Your task to perform on an android device: check the backup settings in the google photos Image 0: 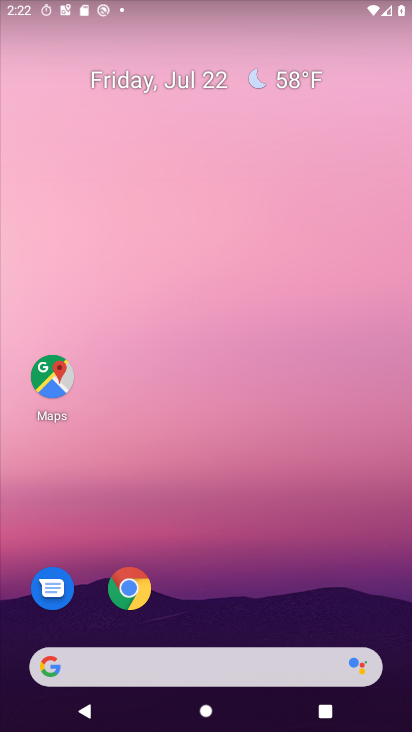
Step 0: press home button
Your task to perform on an android device: check the backup settings in the google photos Image 1: 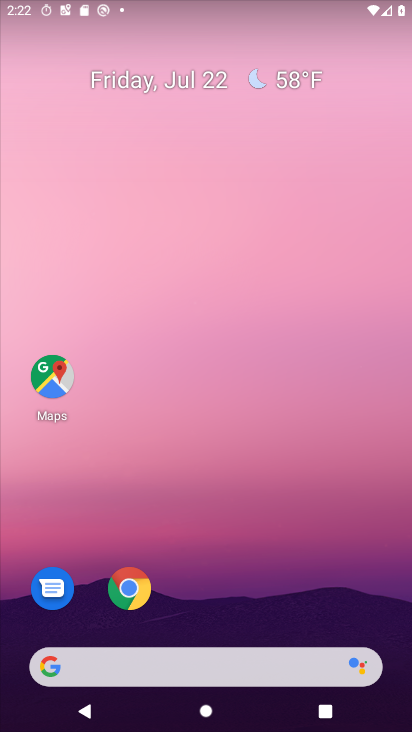
Step 1: drag from (266, 587) to (258, 57)
Your task to perform on an android device: check the backup settings in the google photos Image 2: 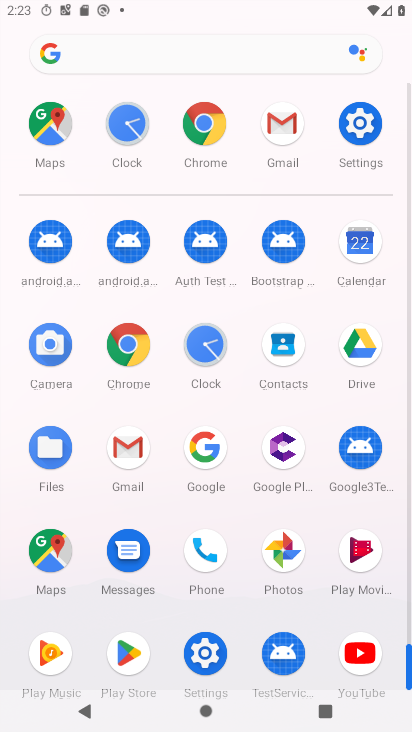
Step 2: click (269, 544)
Your task to perform on an android device: check the backup settings in the google photos Image 3: 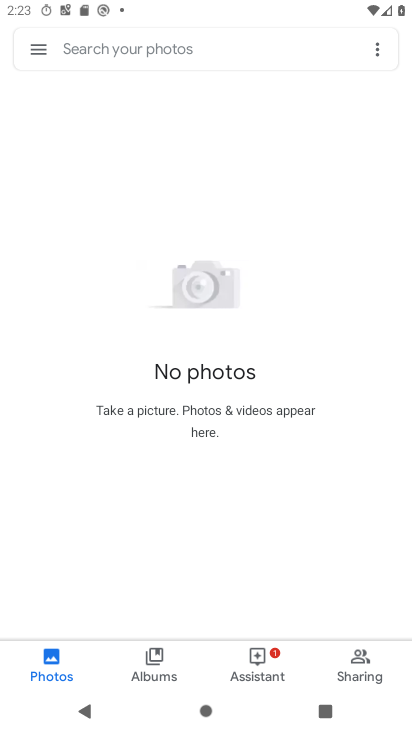
Step 3: click (38, 68)
Your task to perform on an android device: check the backup settings in the google photos Image 4: 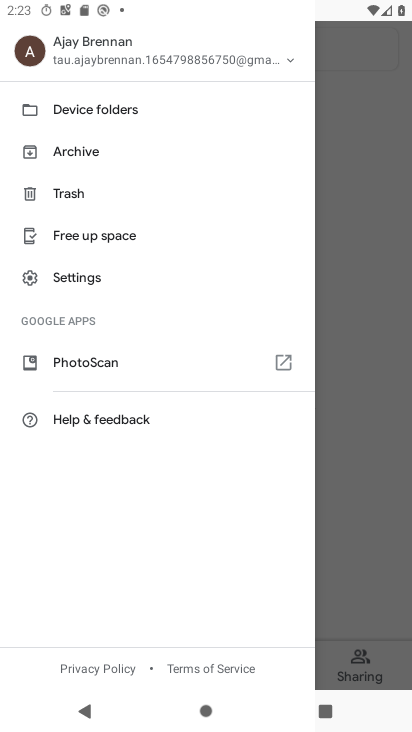
Step 4: click (152, 512)
Your task to perform on an android device: check the backup settings in the google photos Image 5: 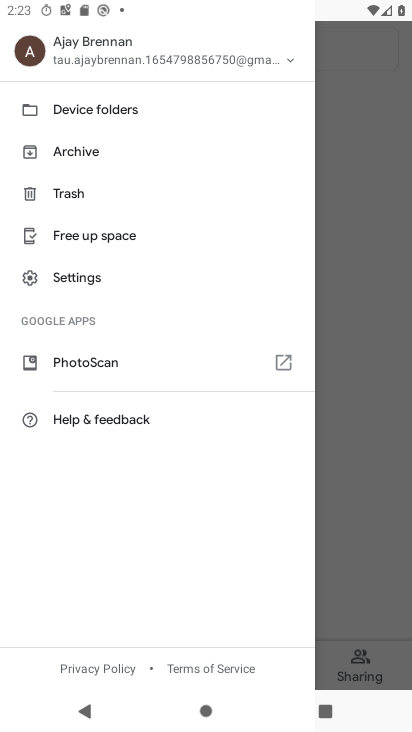
Step 5: click (58, 271)
Your task to perform on an android device: check the backup settings in the google photos Image 6: 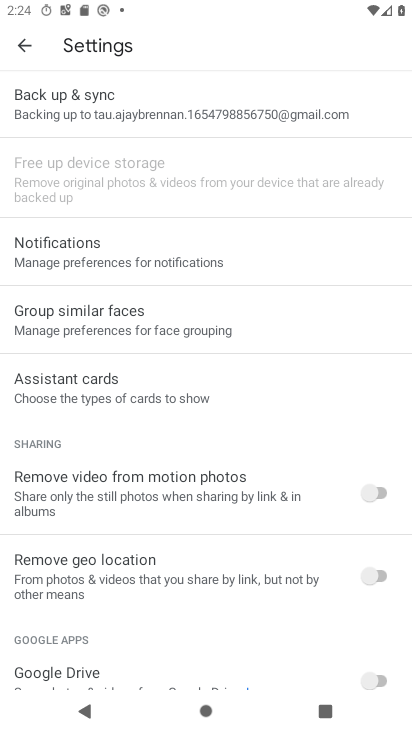
Step 6: click (64, 90)
Your task to perform on an android device: check the backup settings in the google photos Image 7: 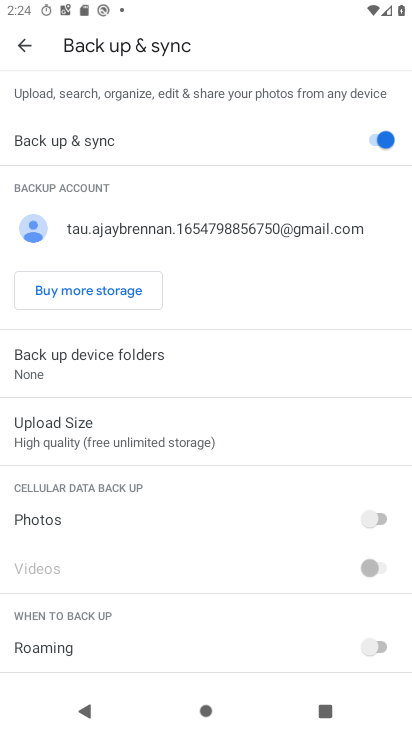
Step 7: task complete